Your task to perform on an android device: Go to network settings Image 0: 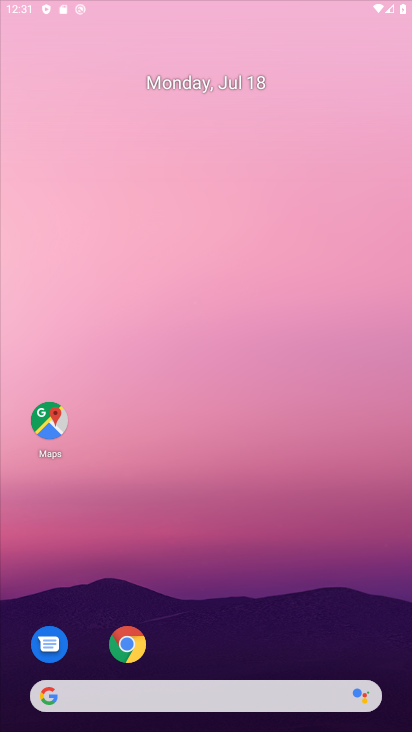
Step 0: press home button
Your task to perform on an android device: Go to network settings Image 1: 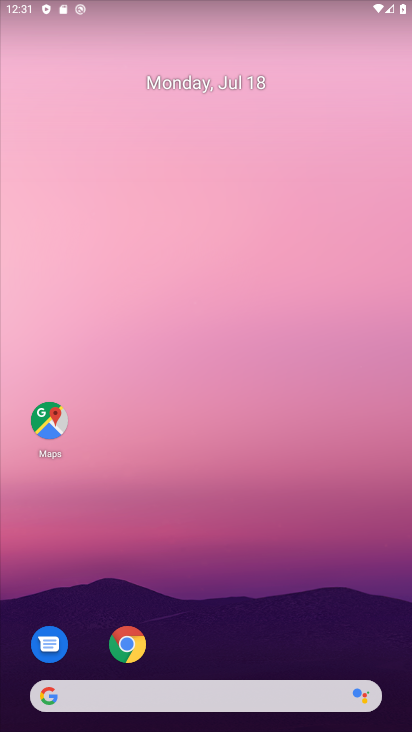
Step 1: drag from (215, 656) to (198, 85)
Your task to perform on an android device: Go to network settings Image 2: 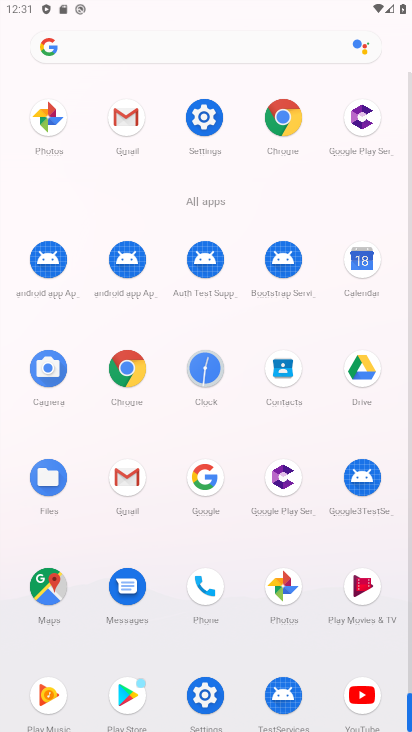
Step 2: click (201, 109)
Your task to perform on an android device: Go to network settings Image 3: 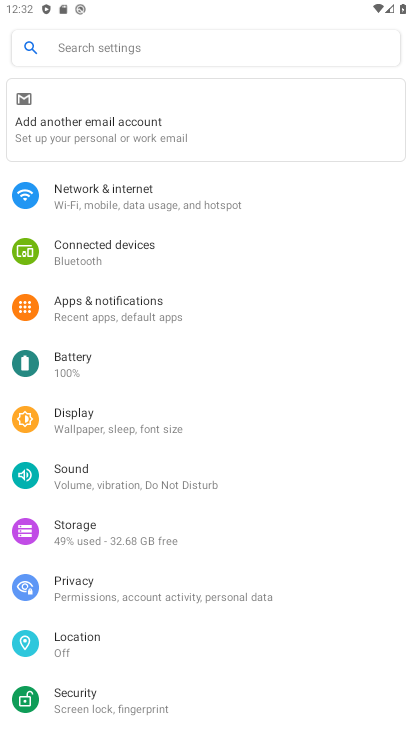
Step 3: click (162, 185)
Your task to perform on an android device: Go to network settings Image 4: 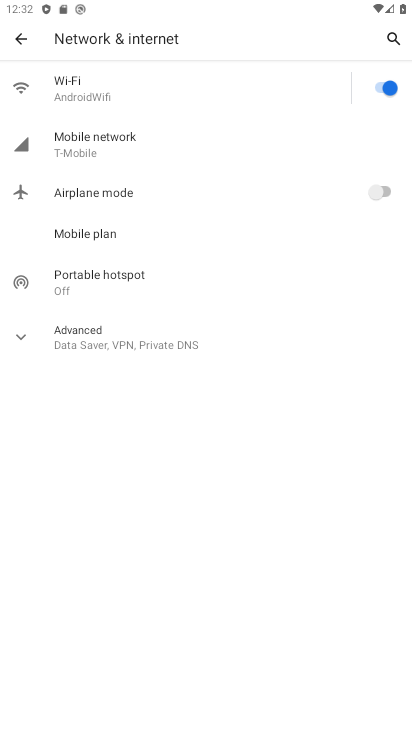
Step 4: click (22, 333)
Your task to perform on an android device: Go to network settings Image 5: 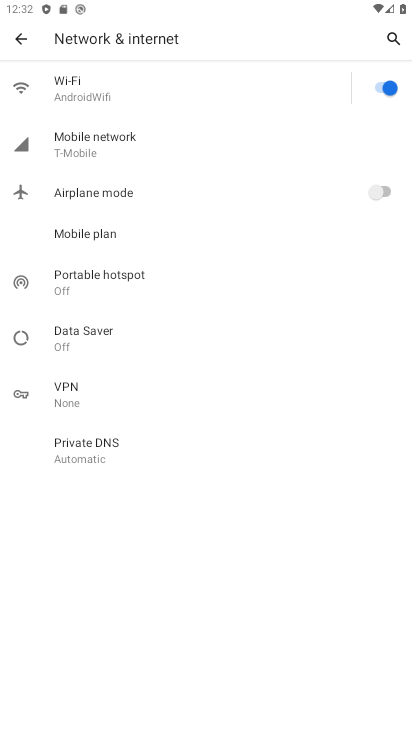
Step 5: task complete